Your task to perform on an android device: Open Google Chrome and open the bookmarks view Image 0: 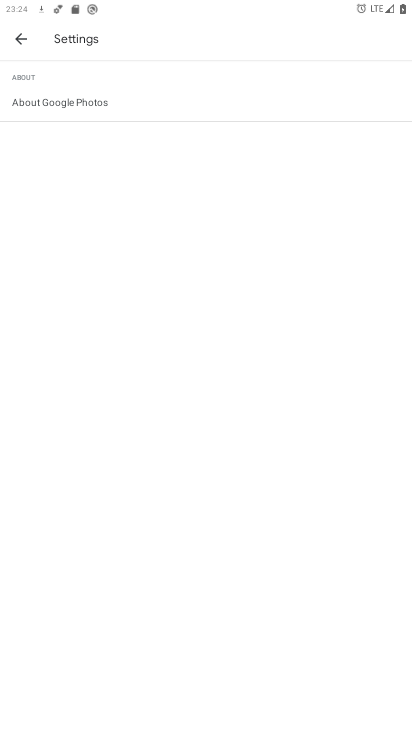
Step 0: drag from (239, 630) to (244, 155)
Your task to perform on an android device: Open Google Chrome and open the bookmarks view Image 1: 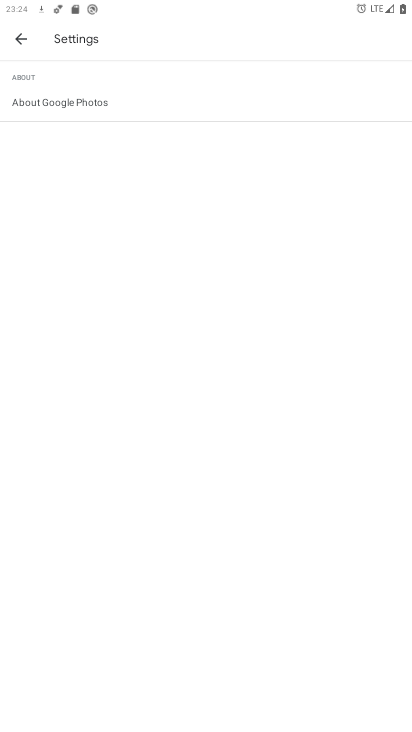
Step 1: press home button
Your task to perform on an android device: Open Google Chrome and open the bookmarks view Image 2: 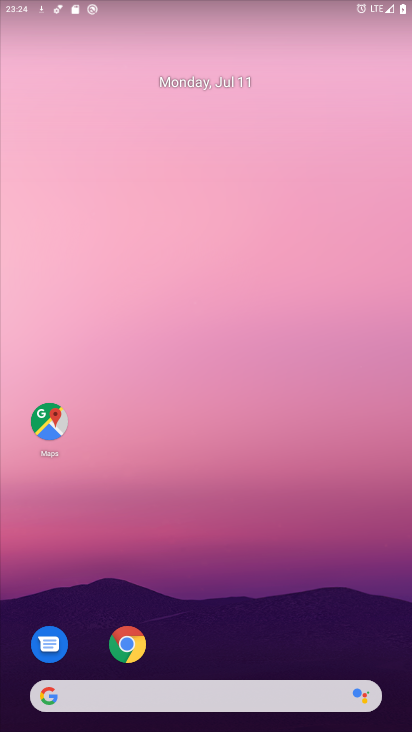
Step 2: drag from (244, 616) to (244, 153)
Your task to perform on an android device: Open Google Chrome and open the bookmarks view Image 3: 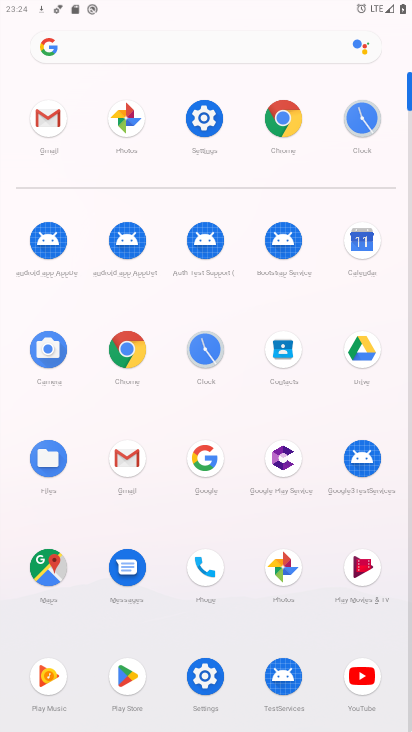
Step 3: click (282, 112)
Your task to perform on an android device: Open Google Chrome and open the bookmarks view Image 4: 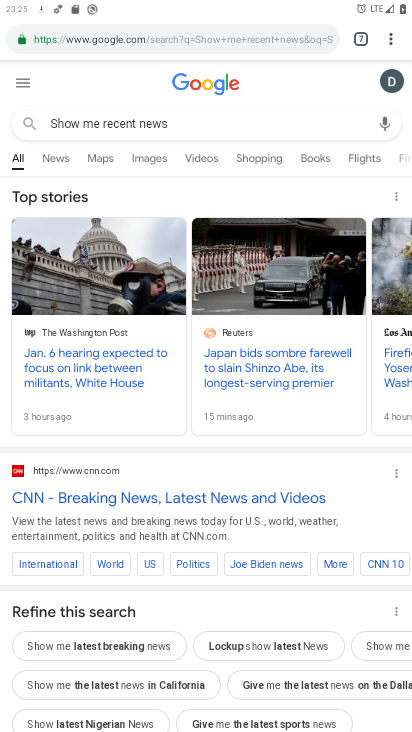
Step 4: click (395, 33)
Your task to perform on an android device: Open Google Chrome and open the bookmarks view Image 5: 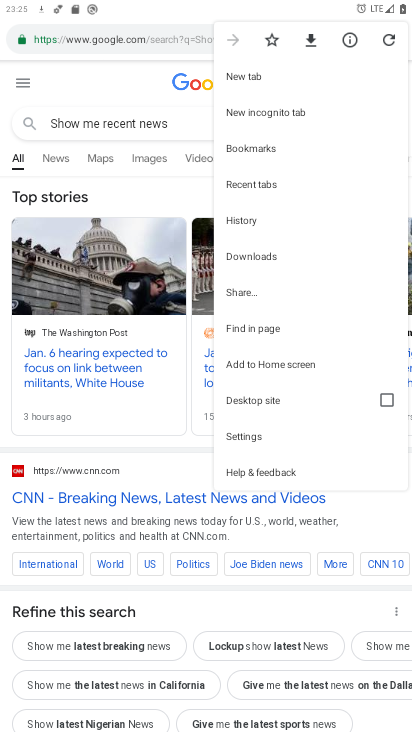
Step 5: click (272, 157)
Your task to perform on an android device: Open Google Chrome and open the bookmarks view Image 6: 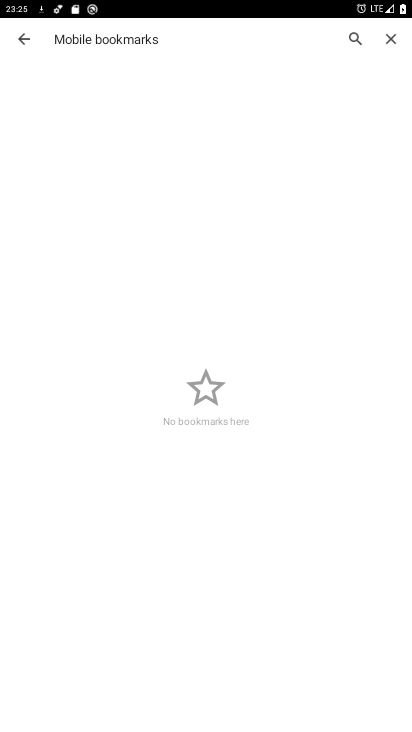
Step 6: task complete